Your task to perform on an android device: clear history in the chrome app Image 0: 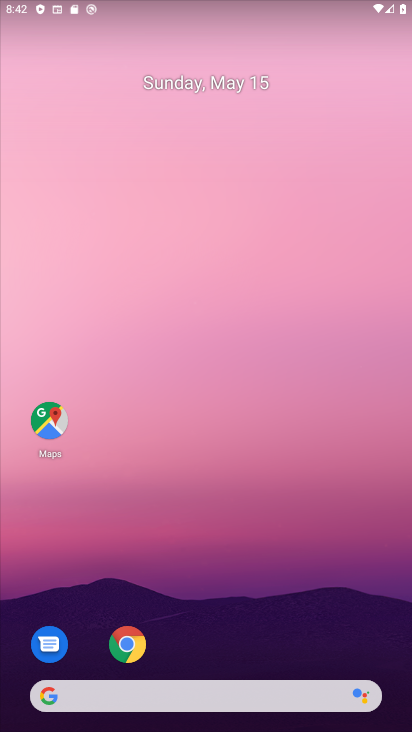
Step 0: drag from (254, 657) to (255, 122)
Your task to perform on an android device: clear history in the chrome app Image 1: 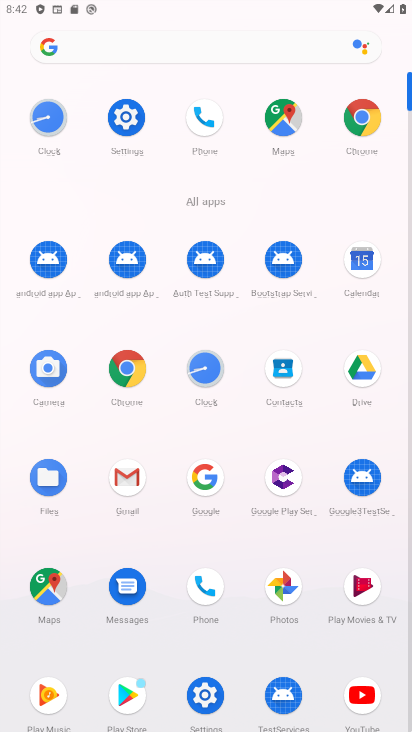
Step 1: click (131, 377)
Your task to perform on an android device: clear history in the chrome app Image 2: 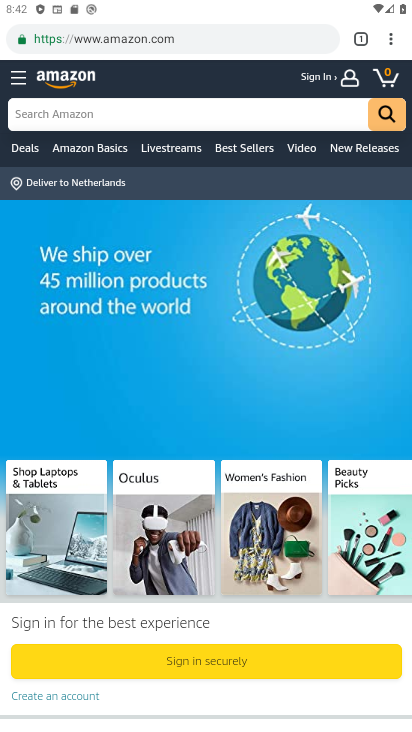
Step 2: drag from (390, 37) to (254, 205)
Your task to perform on an android device: clear history in the chrome app Image 3: 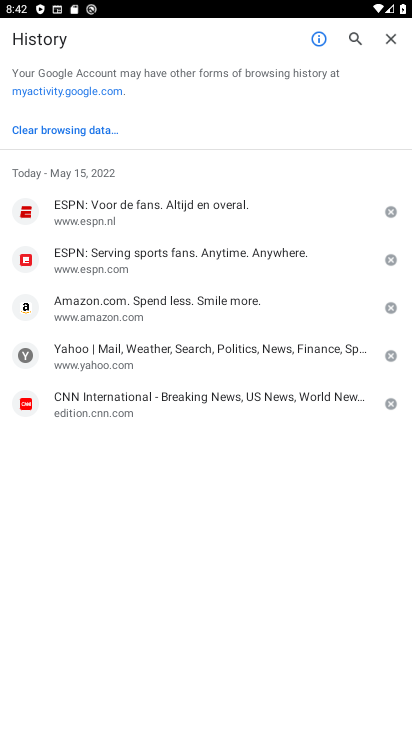
Step 3: click (72, 125)
Your task to perform on an android device: clear history in the chrome app Image 4: 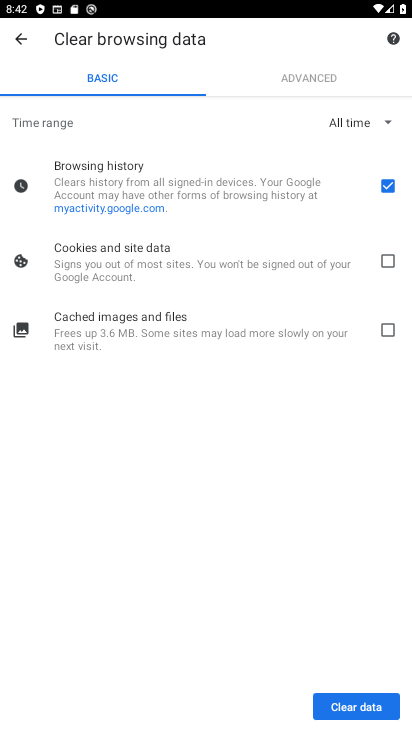
Step 4: click (355, 702)
Your task to perform on an android device: clear history in the chrome app Image 5: 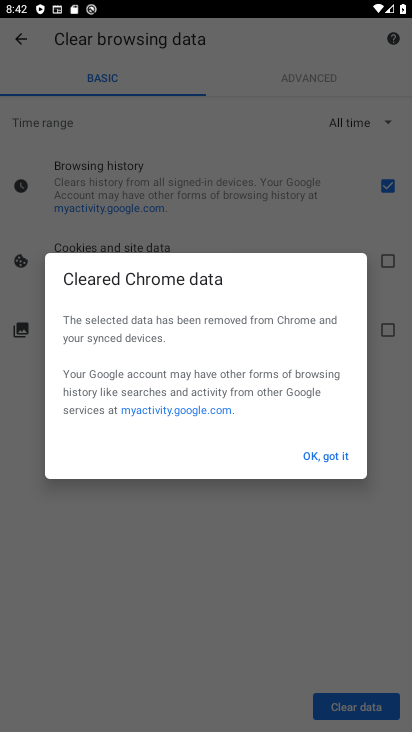
Step 5: click (324, 461)
Your task to perform on an android device: clear history in the chrome app Image 6: 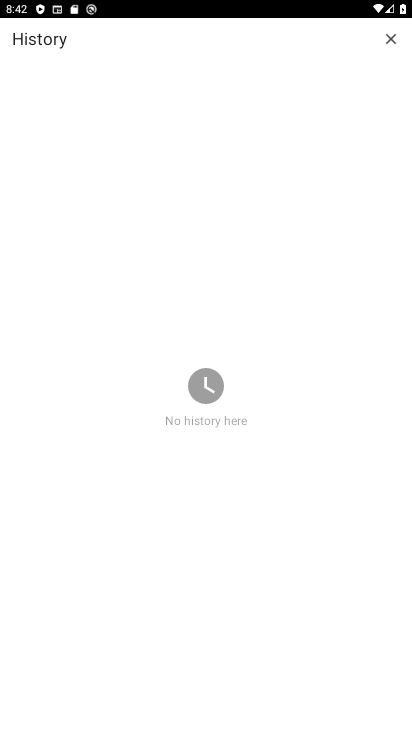
Step 6: task complete